Your task to perform on an android device: Open privacy settings Image 0: 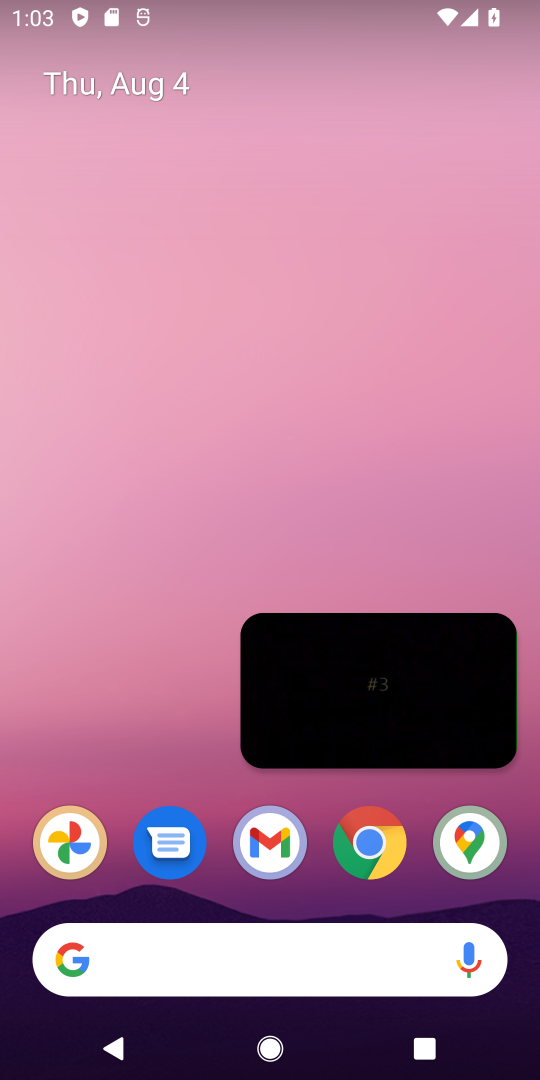
Step 0: drag from (184, 715) to (126, 23)
Your task to perform on an android device: Open privacy settings Image 1: 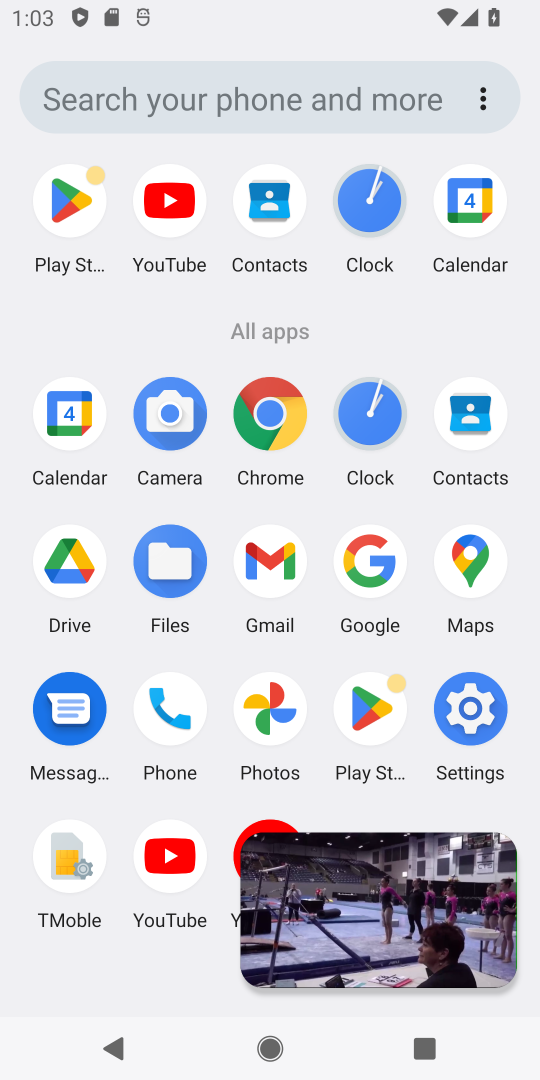
Step 1: click (462, 726)
Your task to perform on an android device: Open privacy settings Image 2: 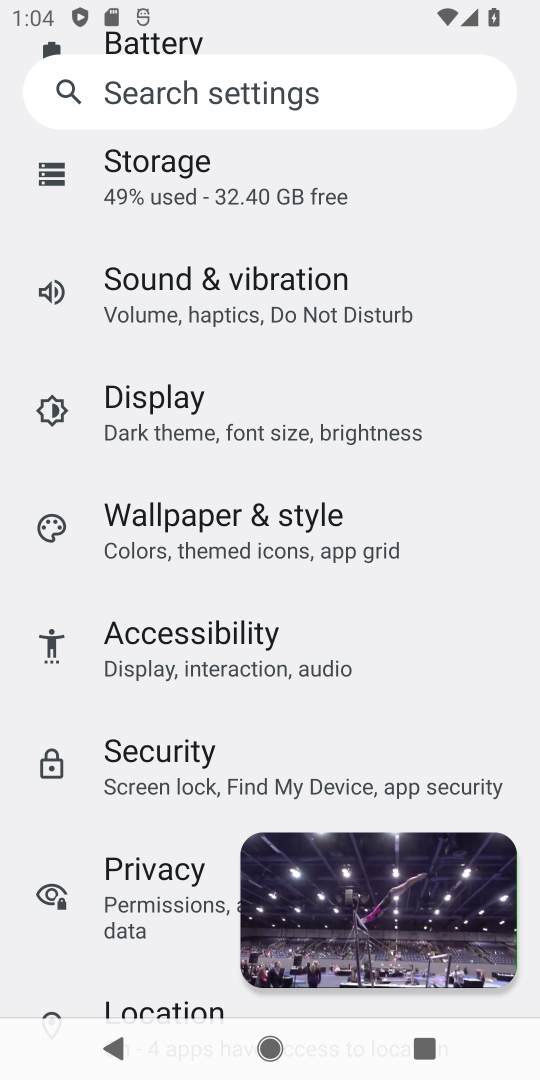
Step 2: click (86, 887)
Your task to perform on an android device: Open privacy settings Image 3: 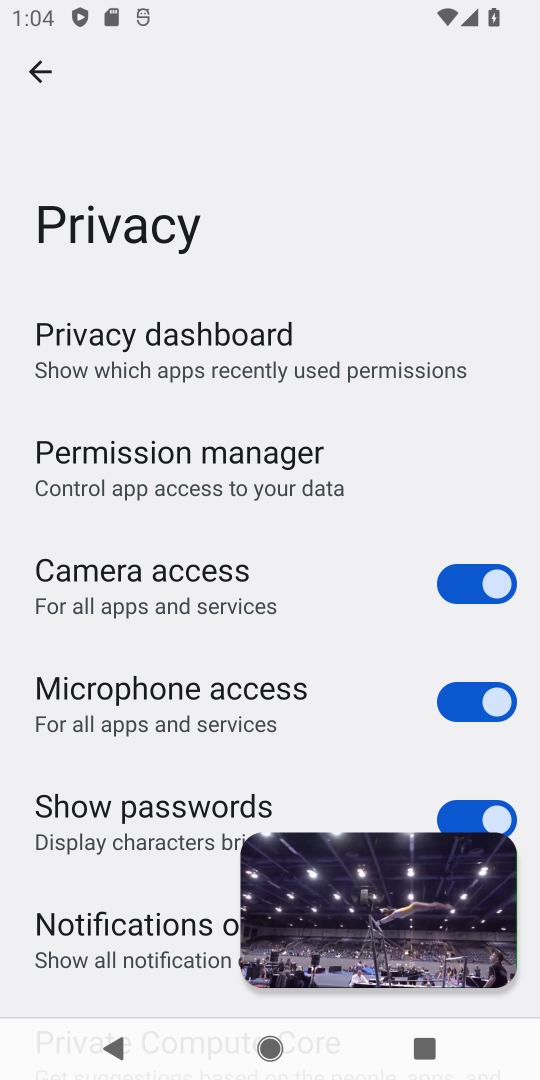
Step 3: task complete